Your task to perform on an android device: Do I have any events tomorrow? Image 0: 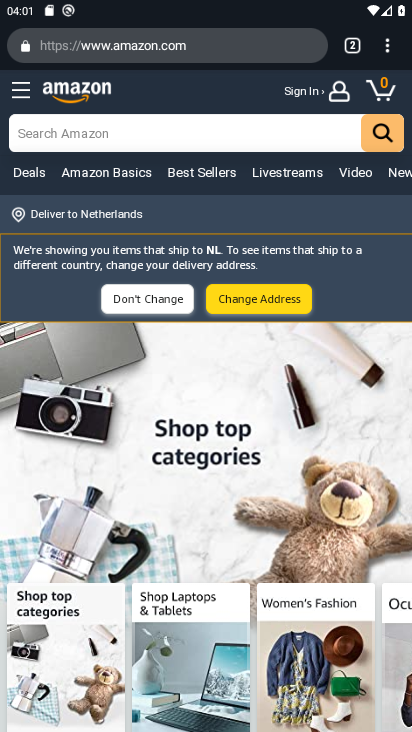
Step 0: press home button
Your task to perform on an android device: Do I have any events tomorrow? Image 1: 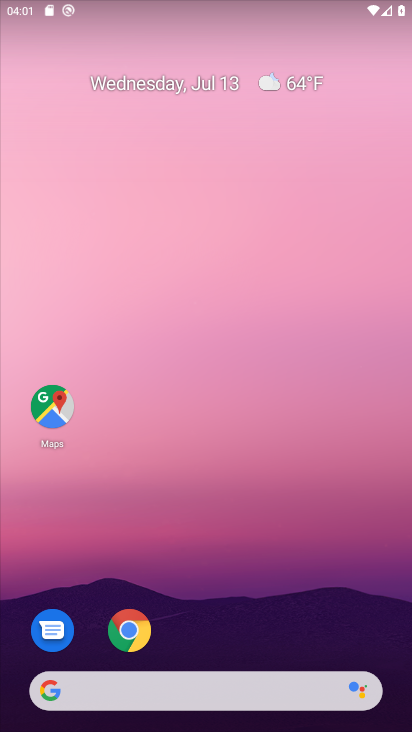
Step 1: click (174, 85)
Your task to perform on an android device: Do I have any events tomorrow? Image 2: 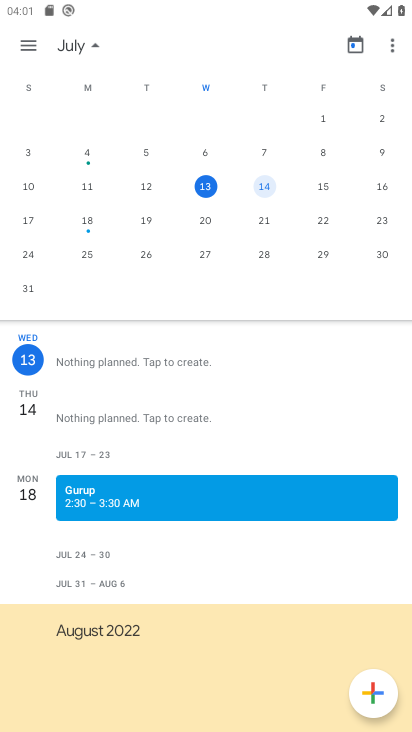
Step 2: click (267, 197)
Your task to perform on an android device: Do I have any events tomorrow? Image 3: 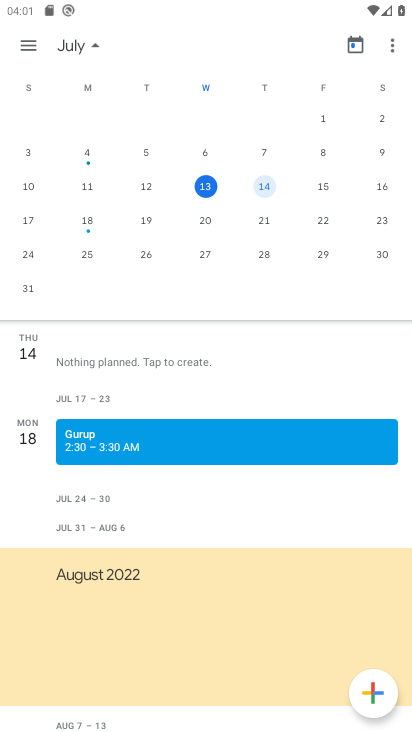
Step 3: task complete